Your task to perform on an android device: turn off notifications in google photos Image 0: 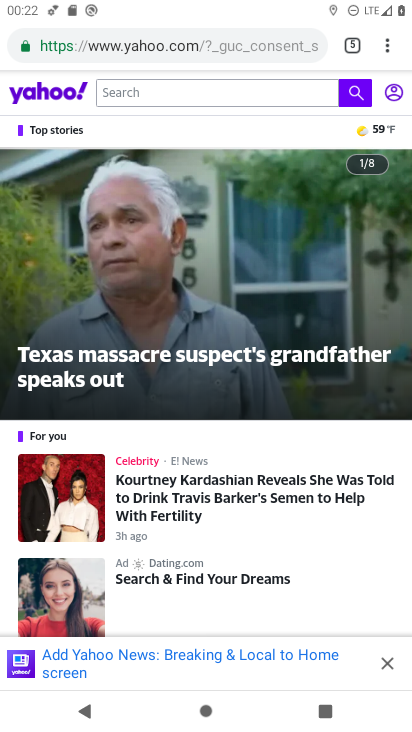
Step 0: press home button
Your task to perform on an android device: turn off notifications in google photos Image 1: 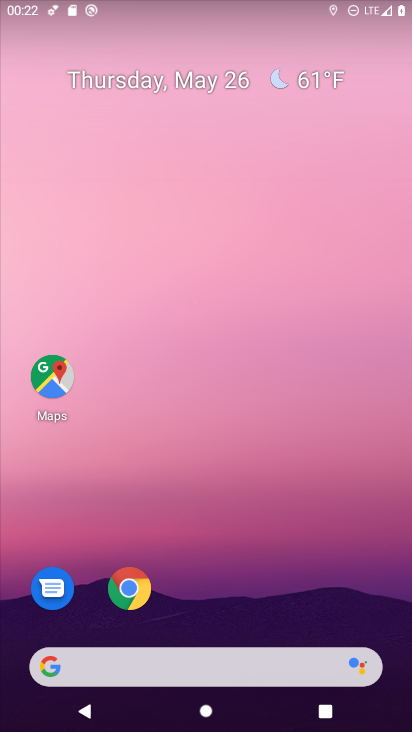
Step 1: drag from (172, 536) to (101, 332)
Your task to perform on an android device: turn off notifications in google photos Image 2: 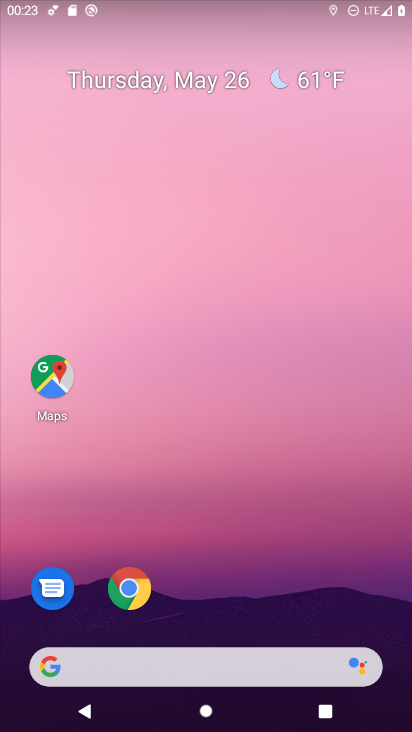
Step 2: drag from (279, 449) to (207, 69)
Your task to perform on an android device: turn off notifications in google photos Image 3: 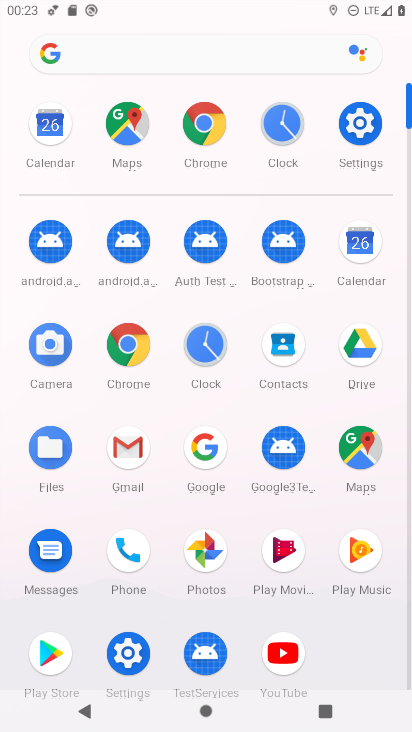
Step 3: click (203, 544)
Your task to perform on an android device: turn off notifications in google photos Image 4: 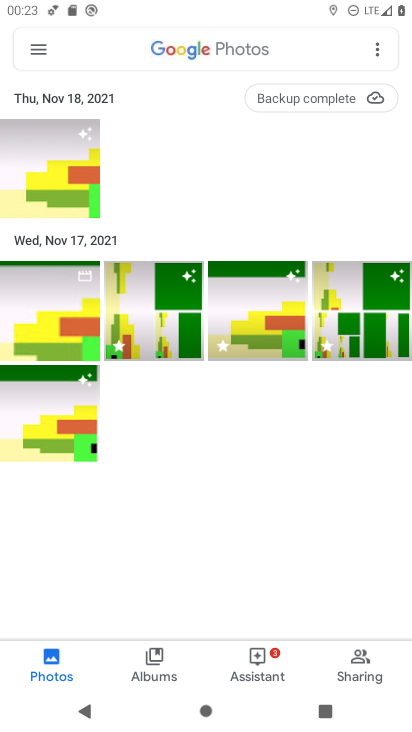
Step 4: click (38, 50)
Your task to perform on an android device: turn off notifications in google photos Image 5: 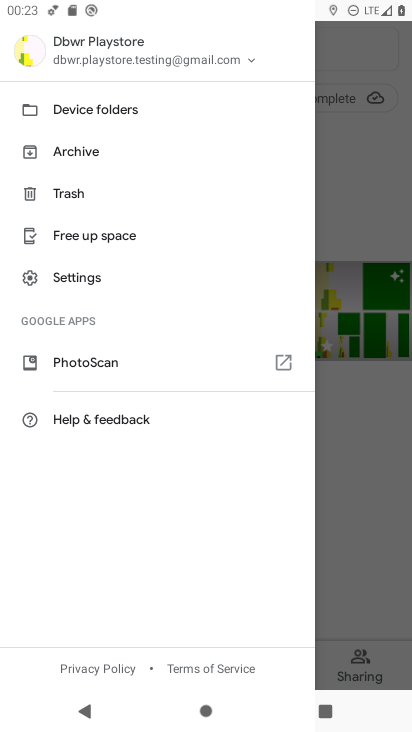
Step 5: click (84, 272)
Your task to perform on an android device: turn off notifications in google photos Image 6: 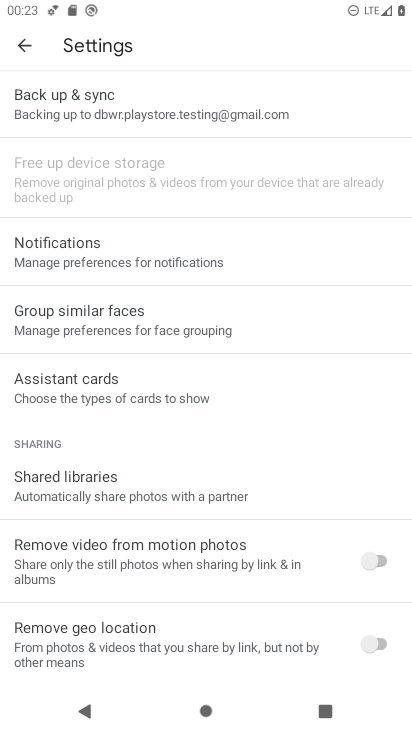
Step 6: click (73, 253)
Your task to perform on an android device: turn off notifications in google photos Image 7: 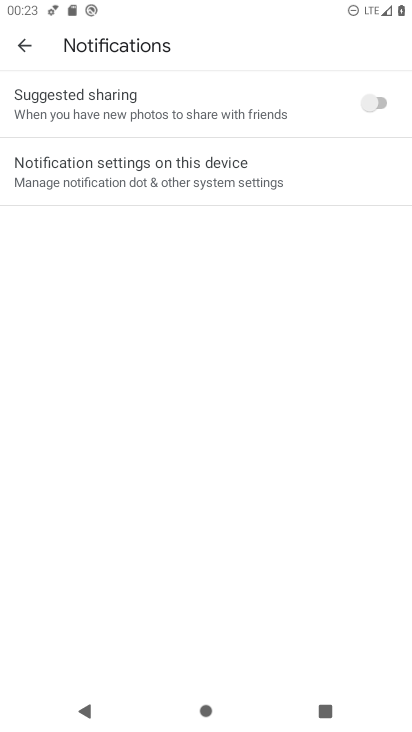
Step 7: click (80, 161)
Your task to perform on an android device: turn off notifications in google photos Image 8: 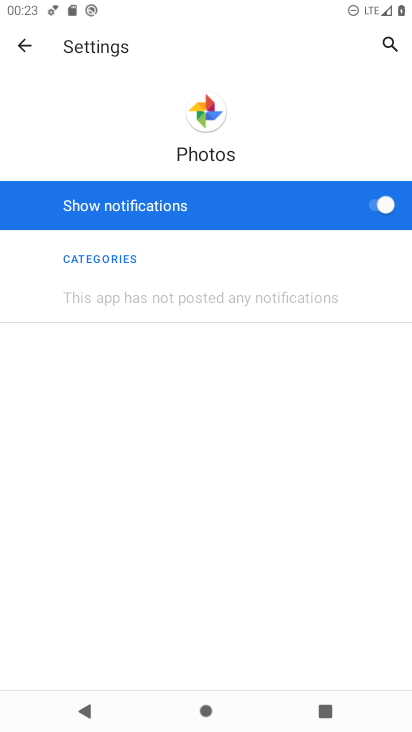
Step 8: click (393, 203)
Your task to perform on an android device: turn off notifications in google photos Image 9: 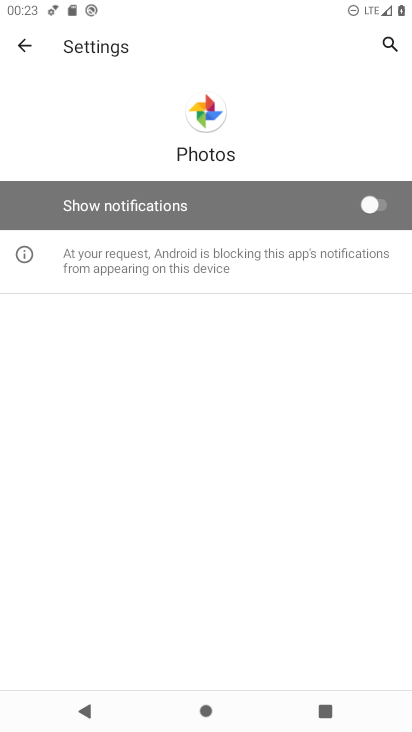
Step 9: task complete